Your task to perform on an android device: toggle priority inbox in the gmail app Image 0: 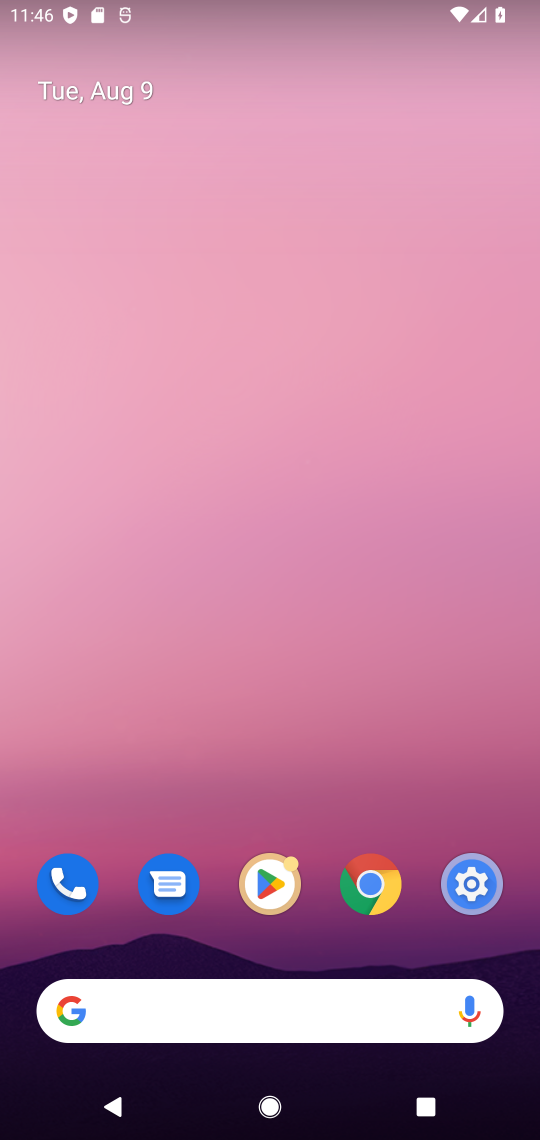
Step 0: drag from (221, 868) to (208, 507)
Your task to perform on an android device: toggle priority inbox in the gmail app Image 1: 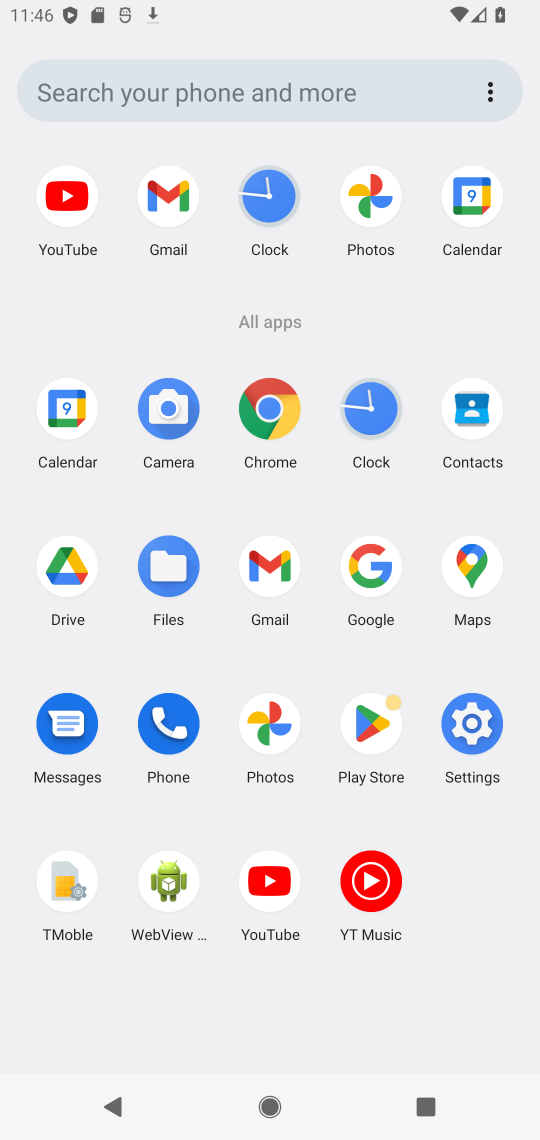
Step 1: click (268, 594)
Your task to perform on an android device: toggle priority inbox in the gmail app Image 2: 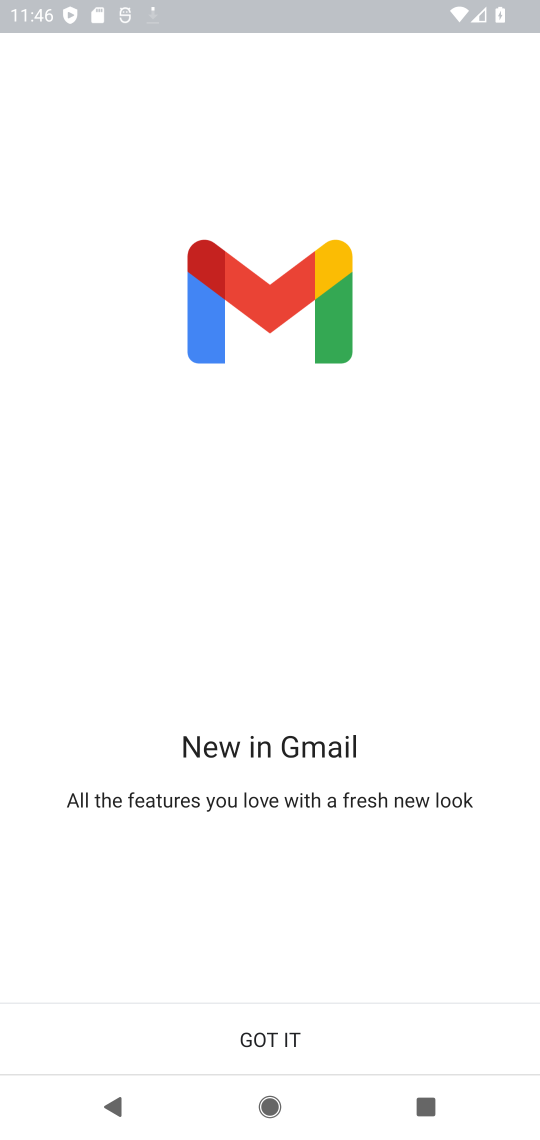
Step 2: click (262, 1017)
Your task to perform on an android device: toggle priority inbox in the gmail app Image 3: 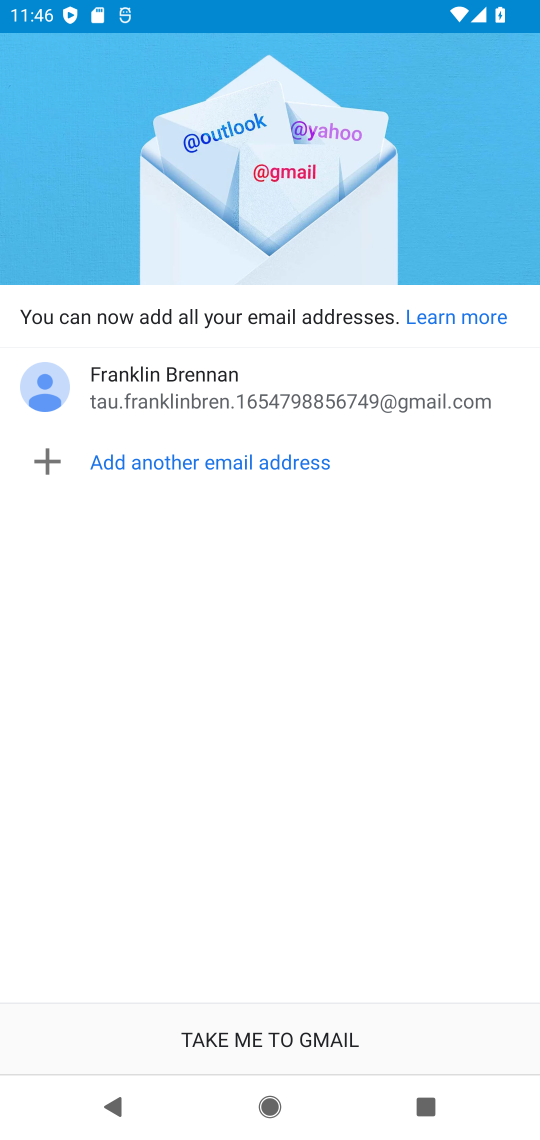
Step 3: click (267, 1029)
Your task to perform on an android device: toggle priority inbox in the gmail app Image 4: 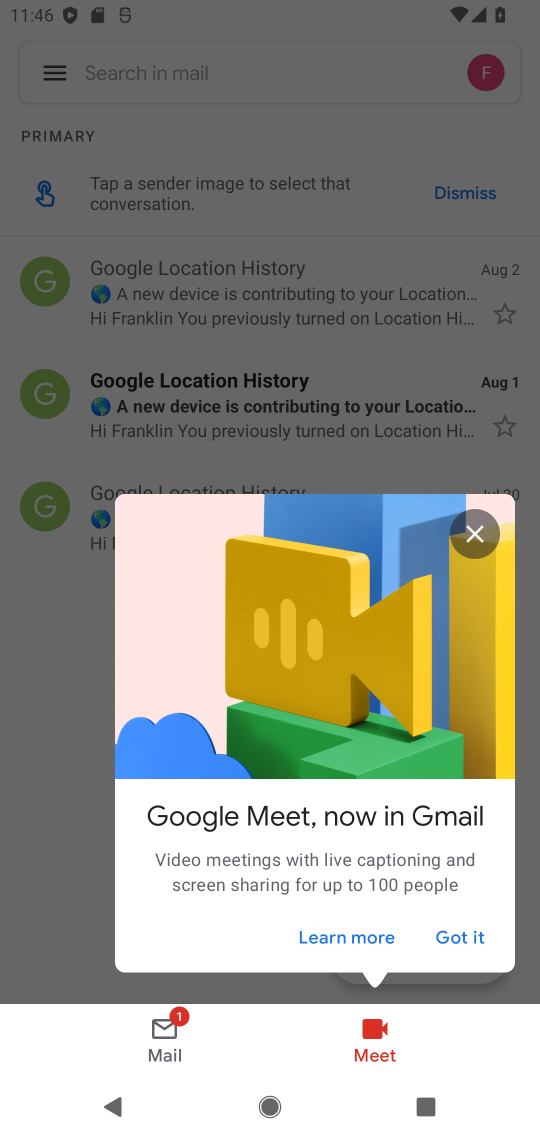
Step 4: click (482, 533)
Your task to perform on an android device: toggle priority inbox in the gmail app Image 5: 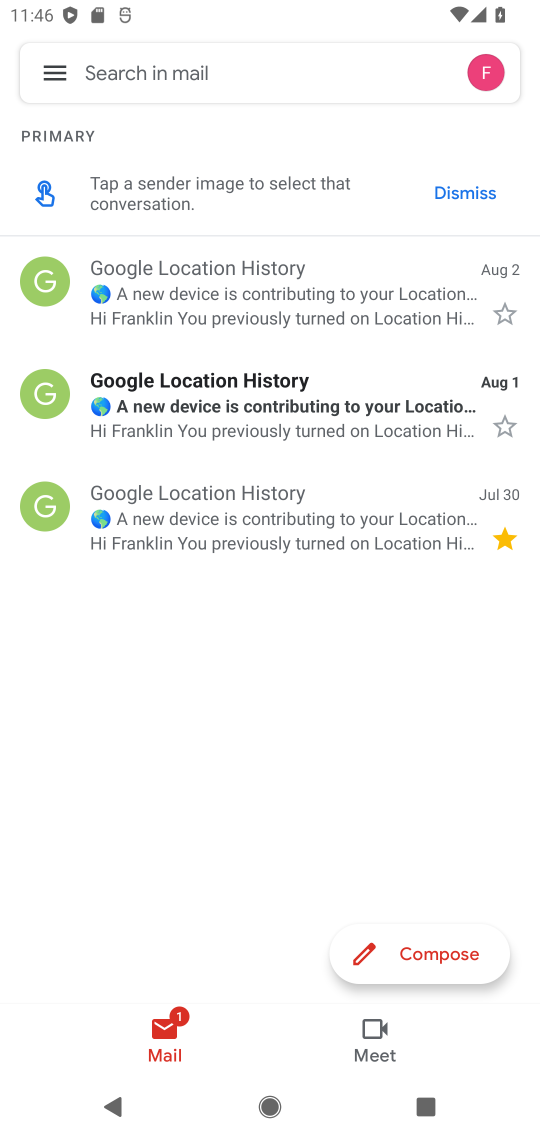
Step 5: click (49, 67)
Your task to perform on an android device: toggle priority inbox in the gmail app Image 6: 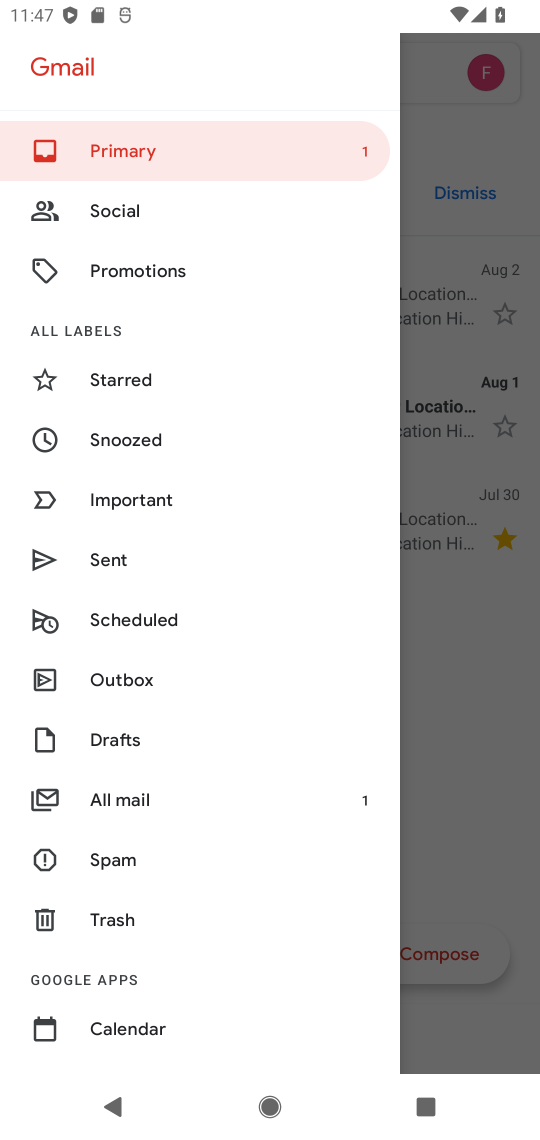
Step 6: drag from (153, 961) to (115, 531)
Your task to perform on an android device: toggle priority inbox in the gmail app Image 7: 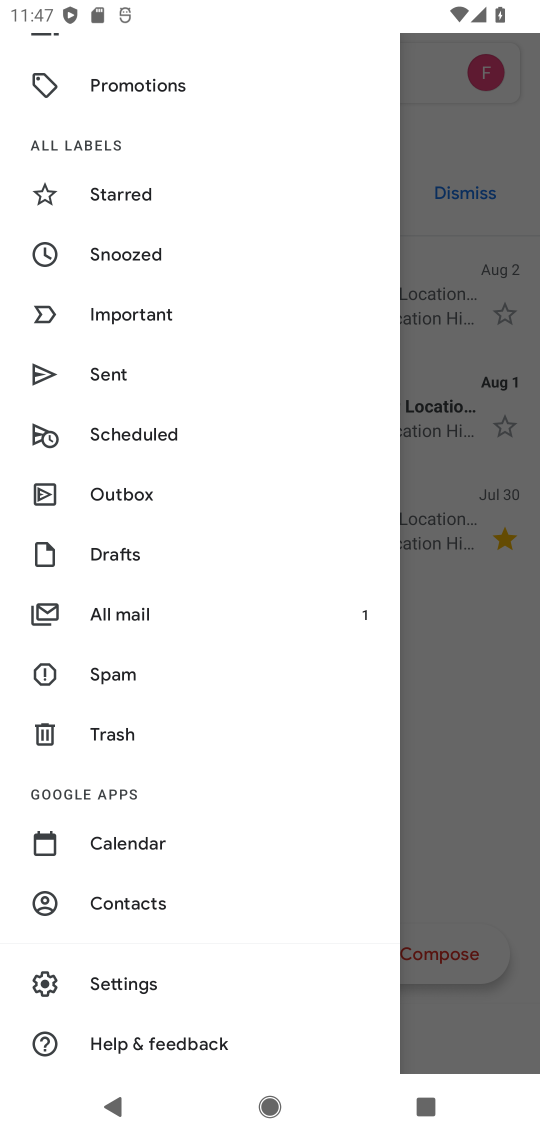
Step 7: click (111, 982)
Your task to perform on an android device: toggle priority inbox in the gmail app Image 8: 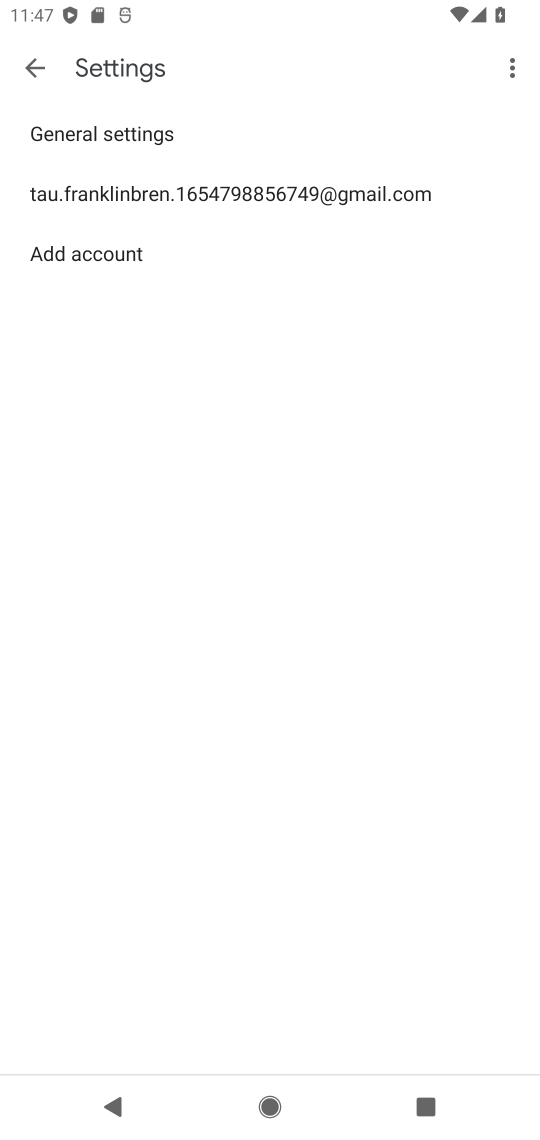
Step 8: click (211, 178)
Your task to perform on an android device: toggle priority inbox in the gmail app Image 9: 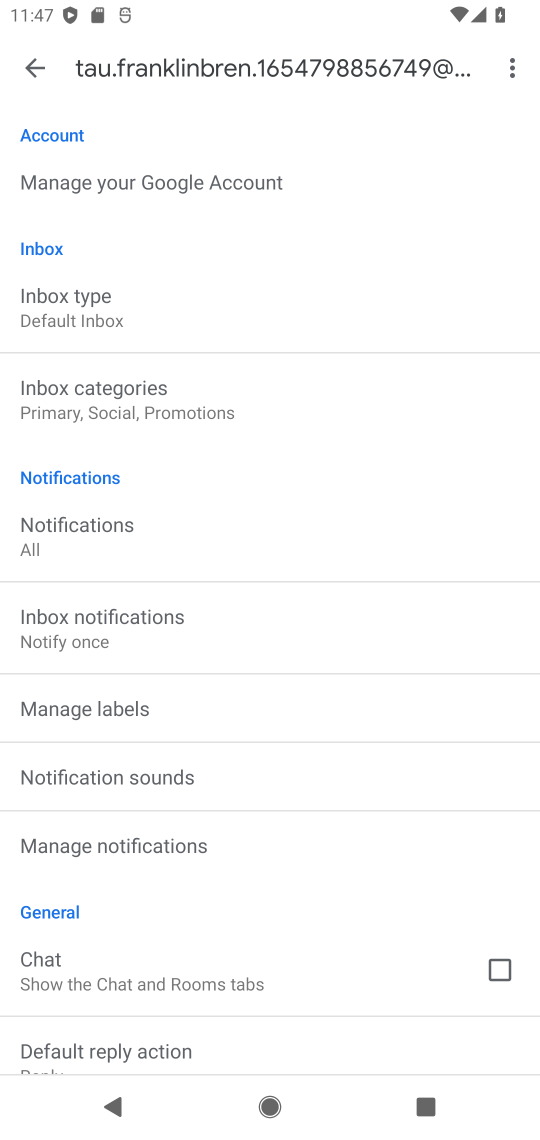
Step 9: click (82, 300)
Your task to perform on an android device: toggle priority inbox in the gmail app Image 10: 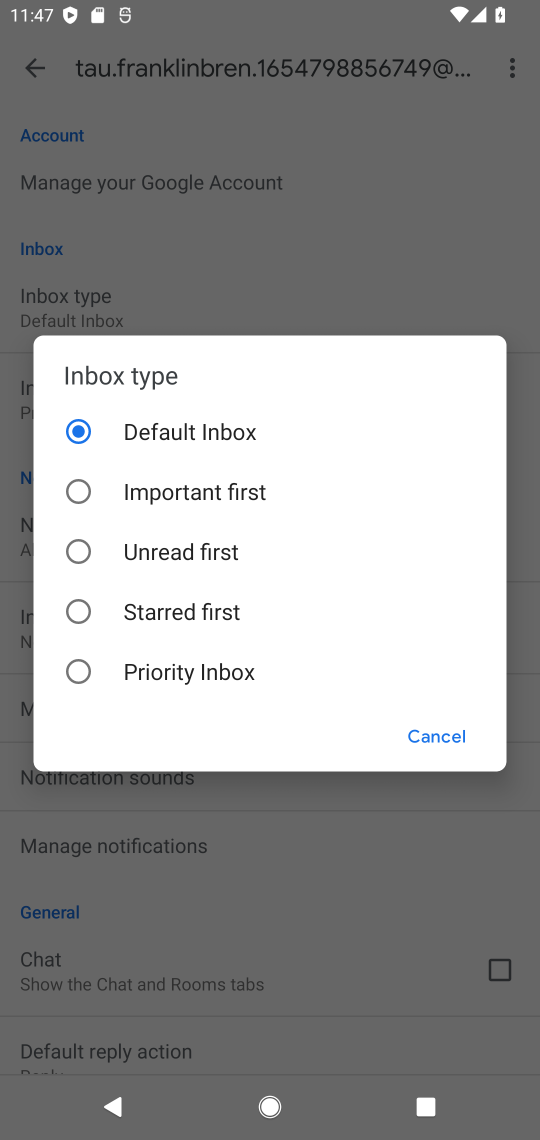
Step 10: click (73, 671)
Your task to perform on an android device: toggle priority inbox in the gmail app Image 11: 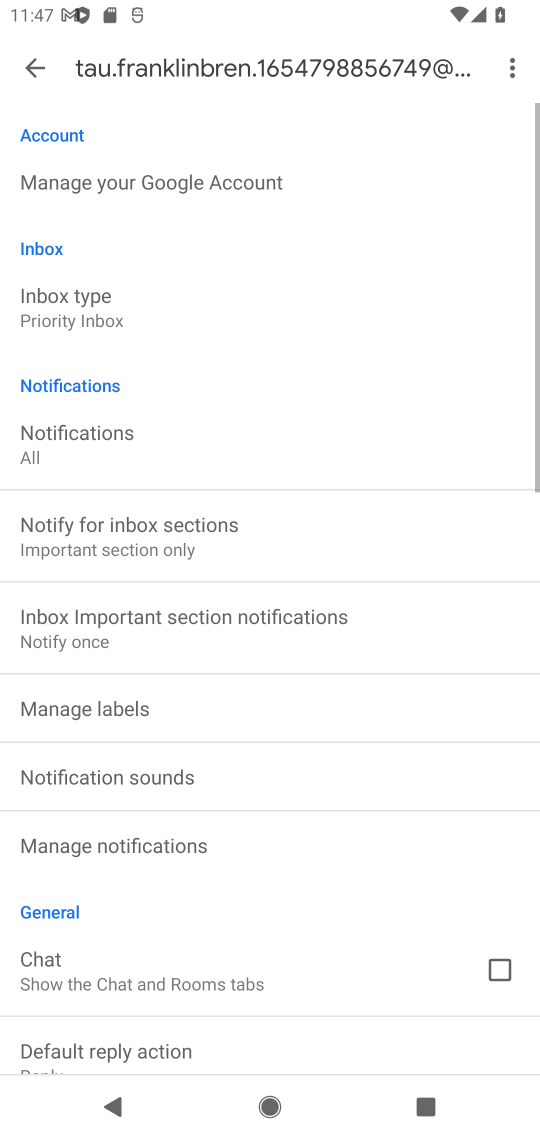
Step 11: task complete